Your task to perform on an android device: delete location history Image 0: 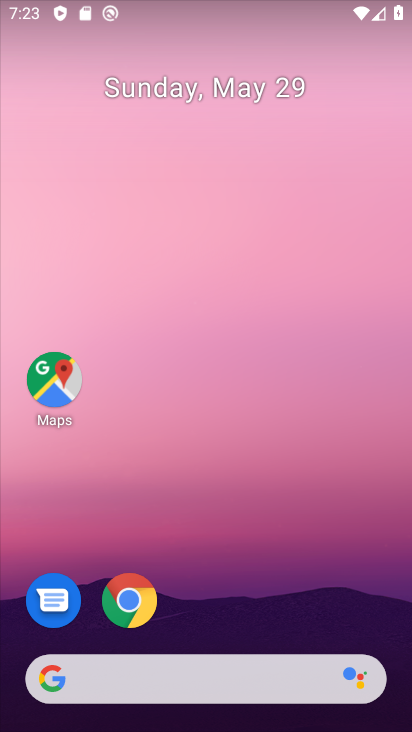
Step 0: drag from (213, 633) to (264, 73)
Your task to perform on an android device: delete location history Image 1: 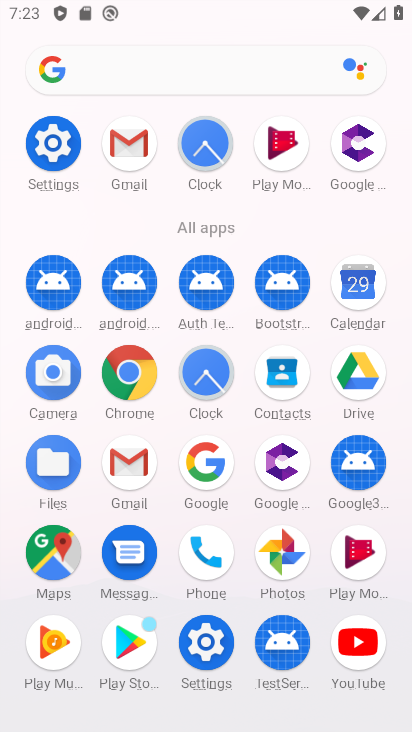
Step 1: click (213, 642)
Your task to perform on an android device: delete location history Image 2: 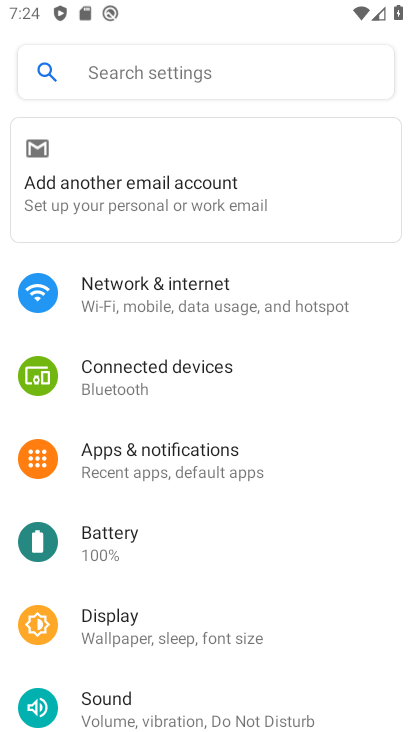
Step 2: press home button
Your task to perform on an android device: delete location history Image 3: 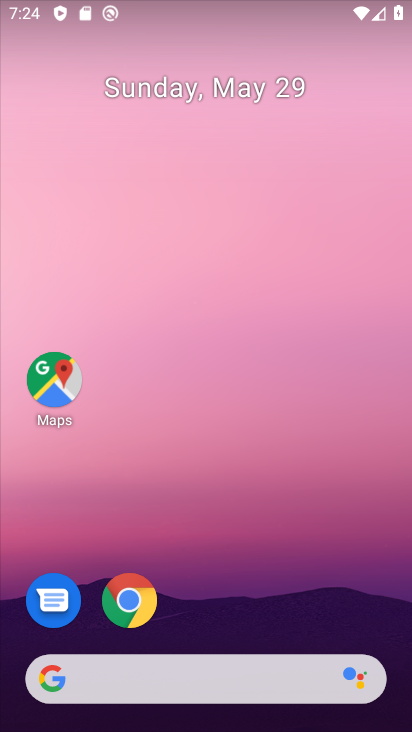
Step 3: click (81, 373)
Your task to perform on an android device: delete location history Image 4: 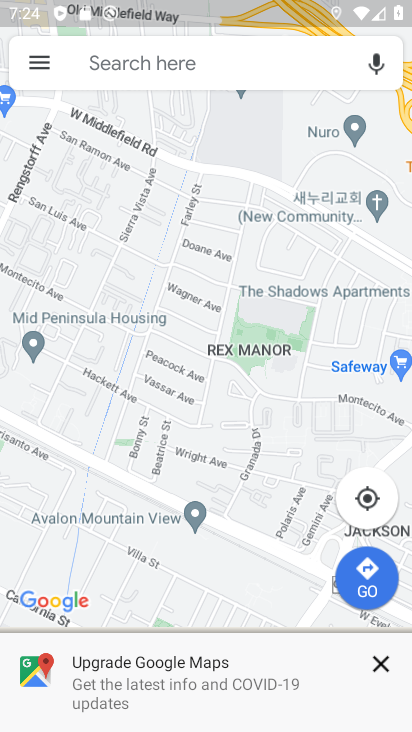
Step 4: click (38, 62)
Your task to perform on an android device: delete location history Image 5: 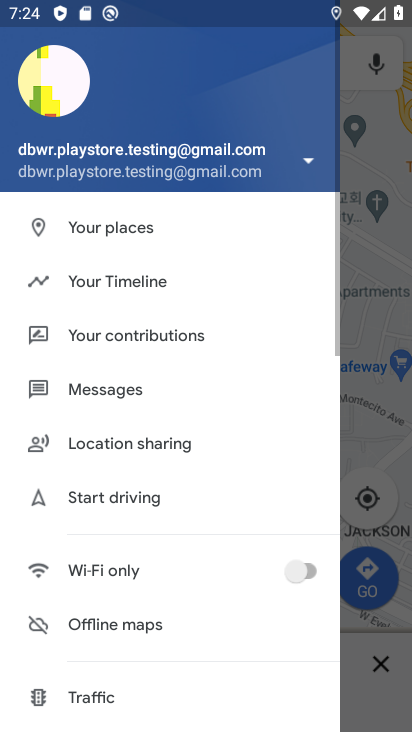
Step 5: click (127, 285)
Your task to perform on an android device: delete location history Image 6: 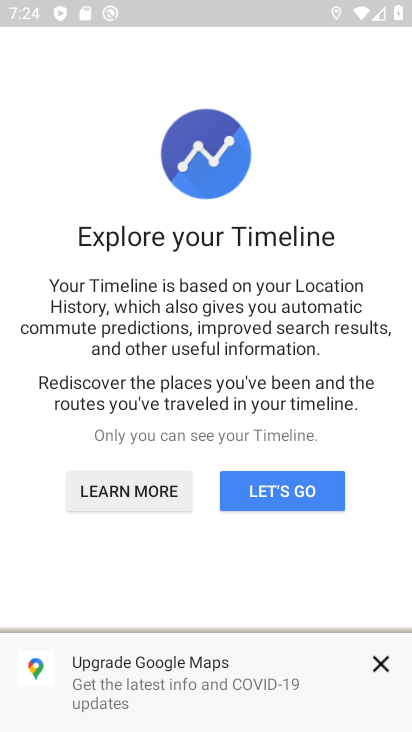
Step 6: click (386, 662)
Your task to perform on an android device: delete location history Image 7: 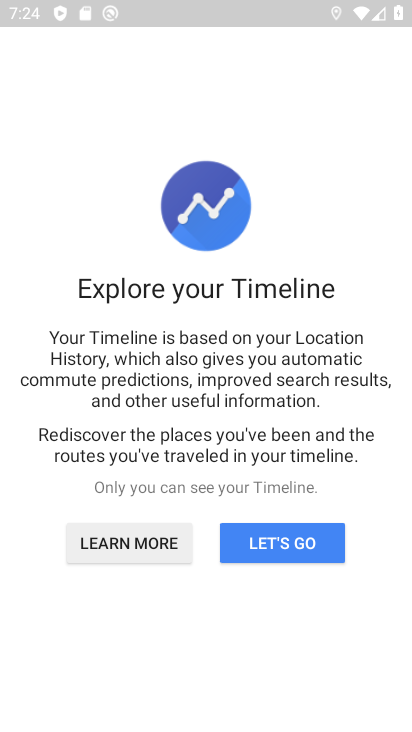
Step 7: click (274, 550)
Your task to perform on an android device: delete location history Image 8: 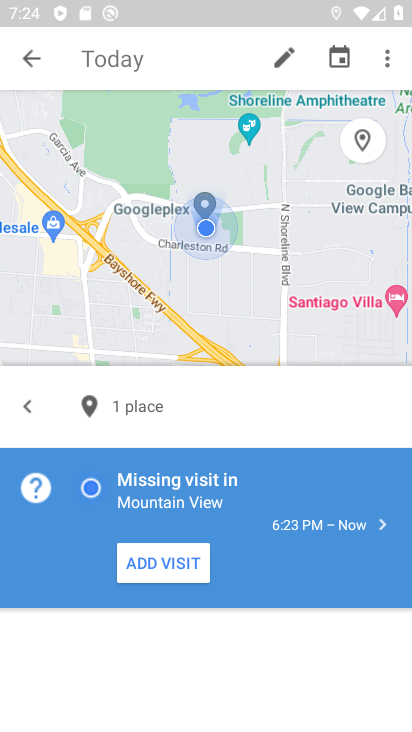
Step 8: click (381, 63)
Your task to perform on an android device: delete location history Image 9: 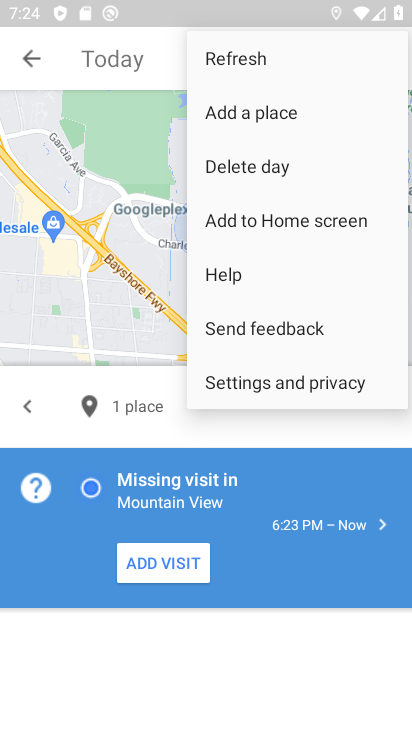
Step 9: click (268, 375)
Your task to perform on an android device: delete location history Image 10: 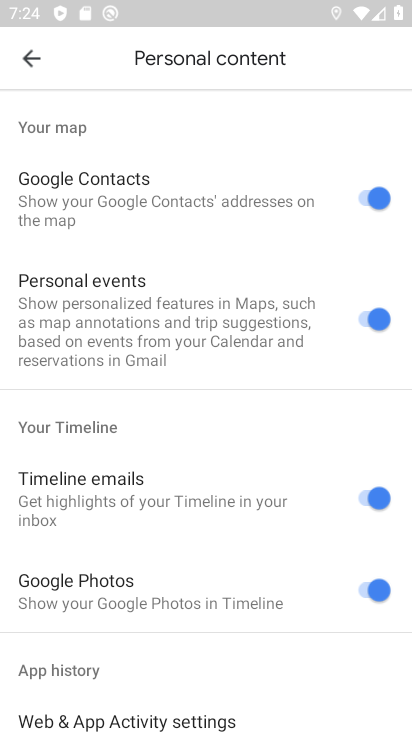
Step 10: drag from (162, 556) to (179, 330)
Your task to perform on an android device: delete location history Image 11: 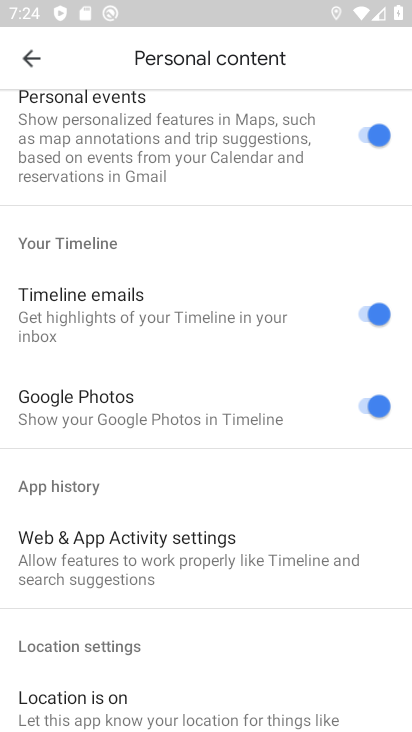
Step 11: drag from (206, 609) to (249, 335)
Your task to perform on an android device: delete location history Image 12: 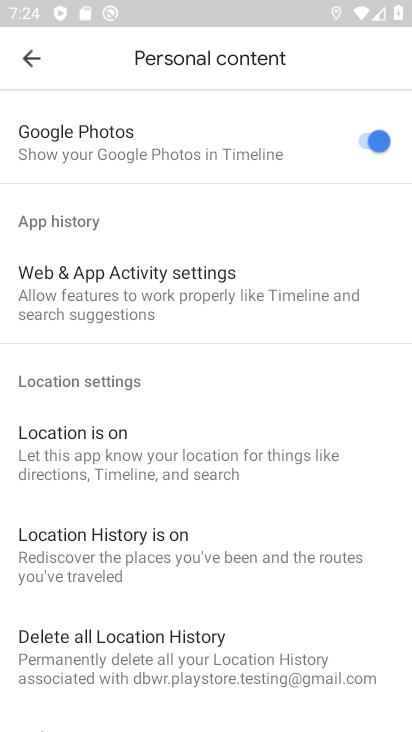
Step 12: click (216, 662)
Your task to perform on an android device: delete location history Image 13: 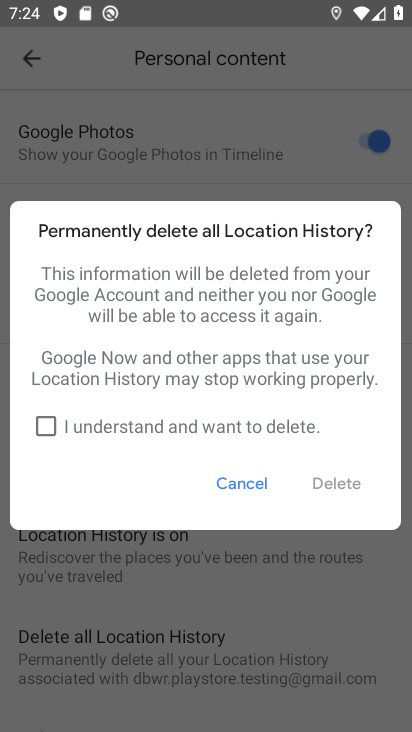
Step 13: click (124, 434)
Your task to perform on an android device: delete location history Image 14: 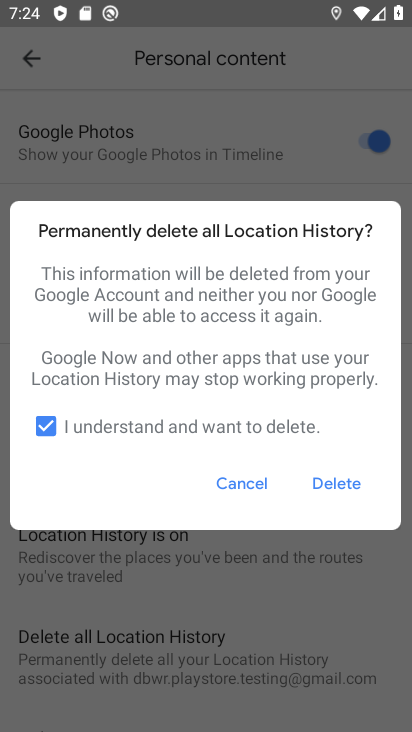
Step 14: click (341, 481)
Your task to perform on an android device: delete location history Image 15: 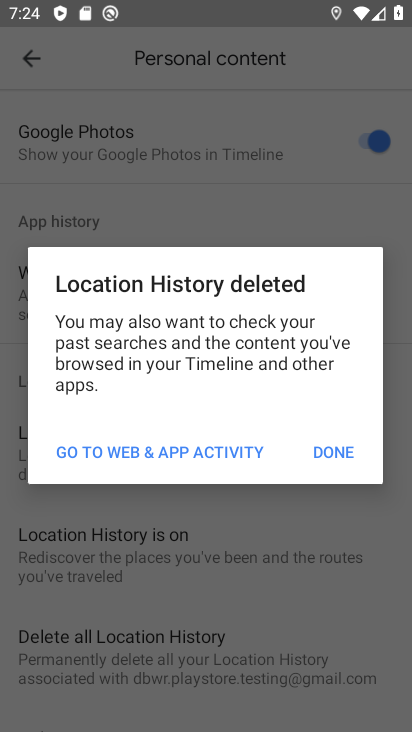
Step 15: click (342, 447)
Your task to perform on an android device: delete location history Image 16: 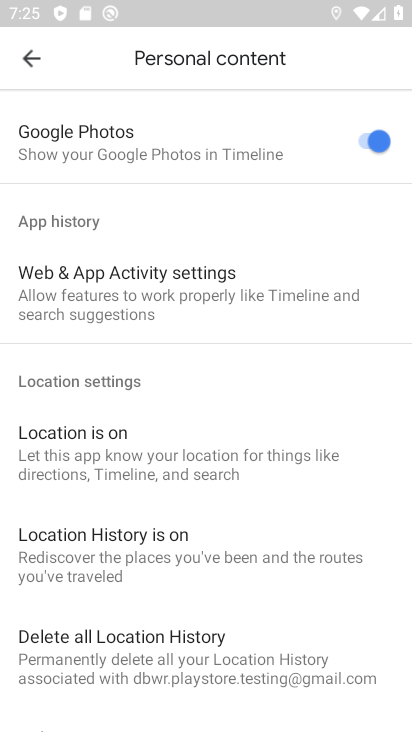
Step 16: task complete